Your task to perform on an android device: Set the phone to "Do not disturb". Image 0: 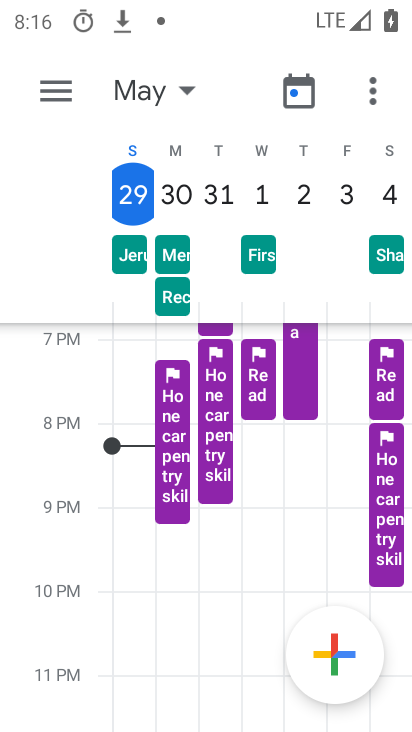
Step 0: press home button
Your task to perform on an android device: Set the phone to "Do not disturb". Image 1: 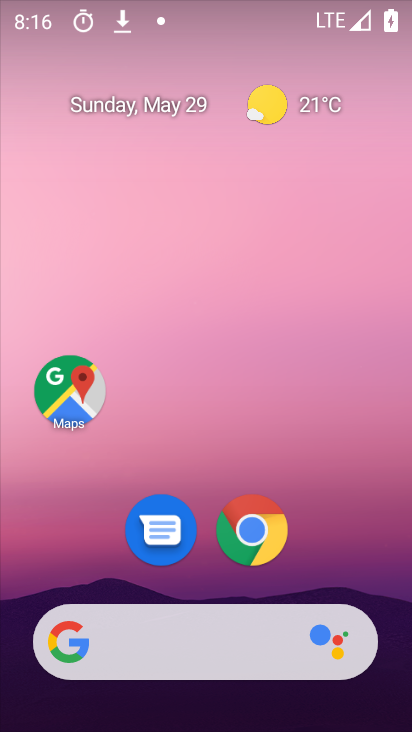
Step 1: drag from (176, 682) to (198, 241)
Your task to perform on an android device: Set the phone to "Do not disturb". Image 2: 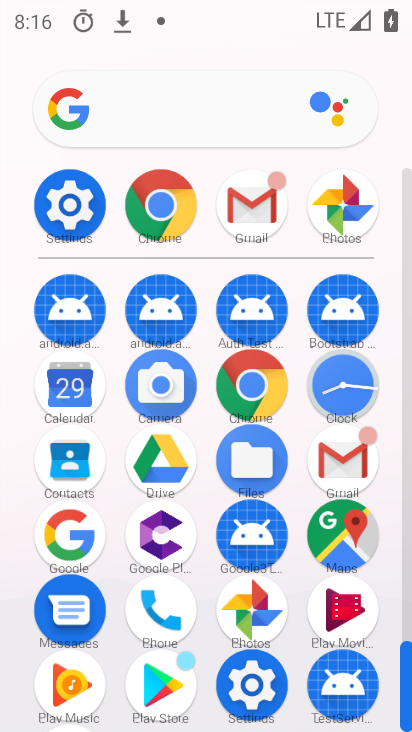
Step 2: click (62, 225)
Your task to perform on an android device: Set the phone to "Do not disturb". Image 3: 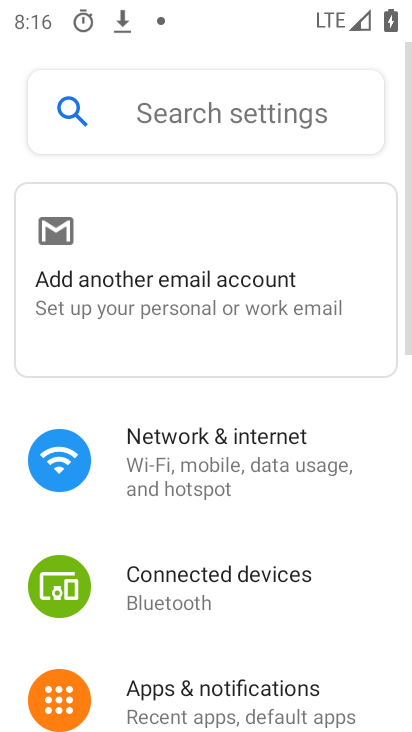
Step 3: click (158, 116)
Your task to perform on an android device: Set the phone to "Do not disturb". Image 4: 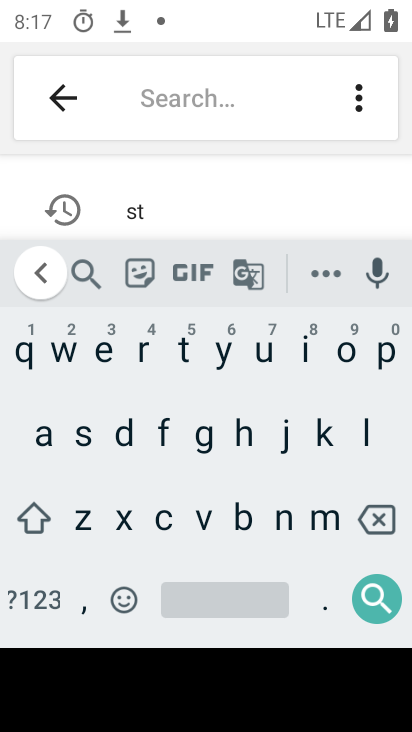
Step 4: click (111, 437)
Your task to perform on an android device: Set the phone to "Do not disturb". Image 5: 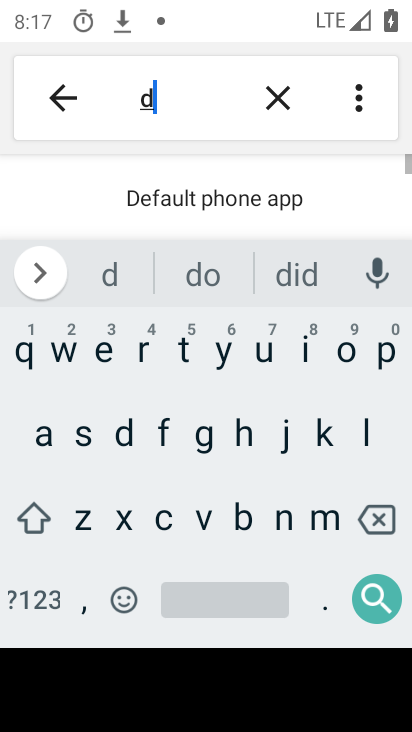
Step 5: click (286, 524)
Your task to perform on an android device: Set the phone to "Do not disturb". Image 6: 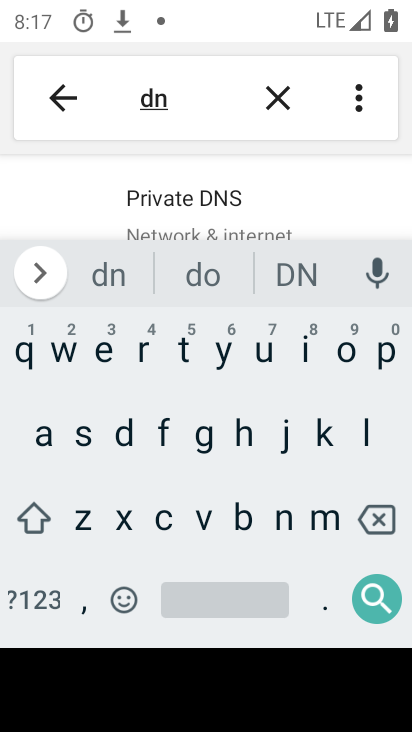
Step 6: click (119, 438)
Your task to perform on an android device: Set the phone to "Do not disturb". Image 7: 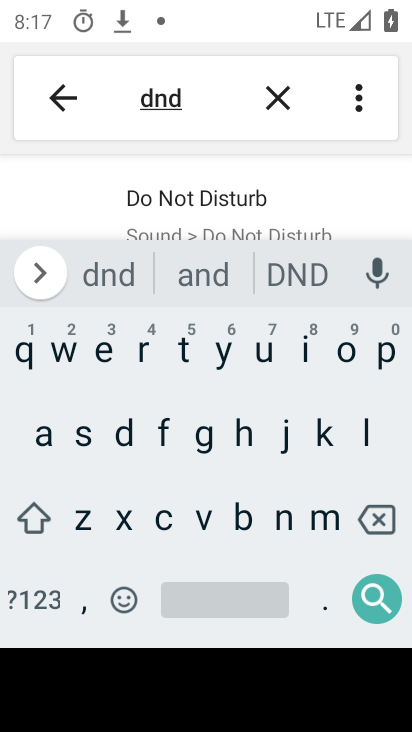
Step 7: click (201, 193)
Your task to perform on an android device: Set the phone to "Do not disturb". Image 8: 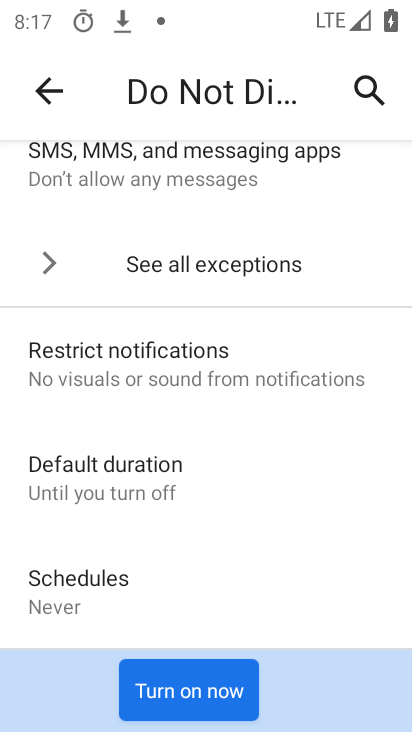
Step 8: click (198, 658)
Your task to perform on an android device: Set the phone to "Do not disturb". Image 9: 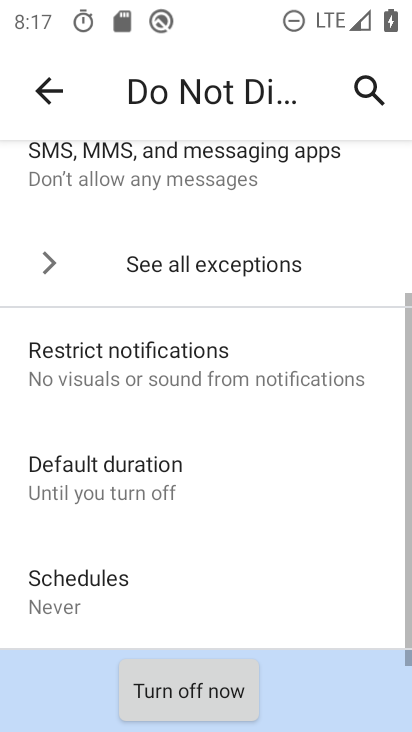
Step 9: task complete